Your task to perform on an android device: open sync settings in chrome Image 0: 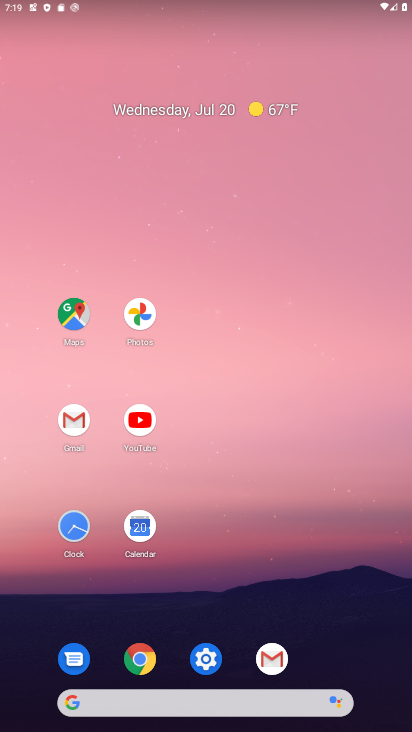
Step 0: click (144, 661)
Your task to perform on an android device: open sync settings in chrome Image 1: 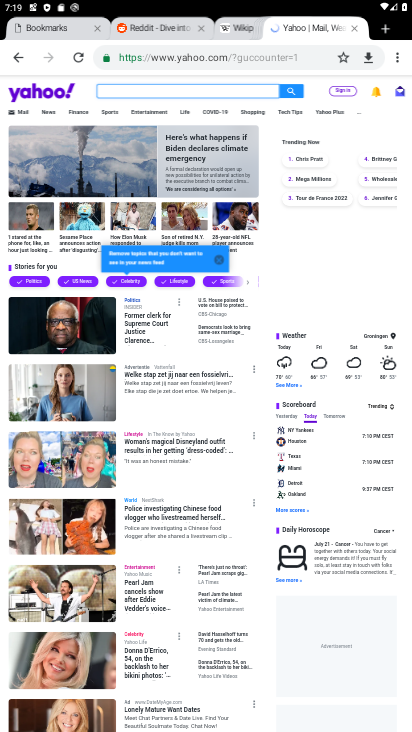
Step 1: click (398, 58)
Your task to perform on an android device: open sync settings in chrome Image 2: 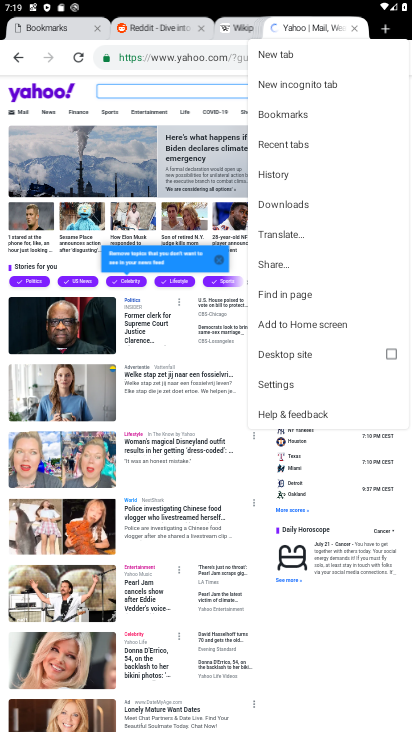
Step 2: click (275, 386)
Your task to perform on an android device: open sync settings in chrome Image 3: 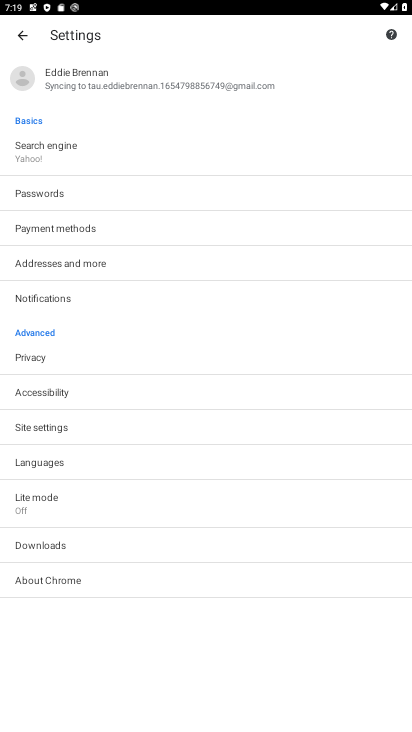
Step 3: click (63, 72)
Your task to perform on an android device: open sync settings in chrome Image 4: 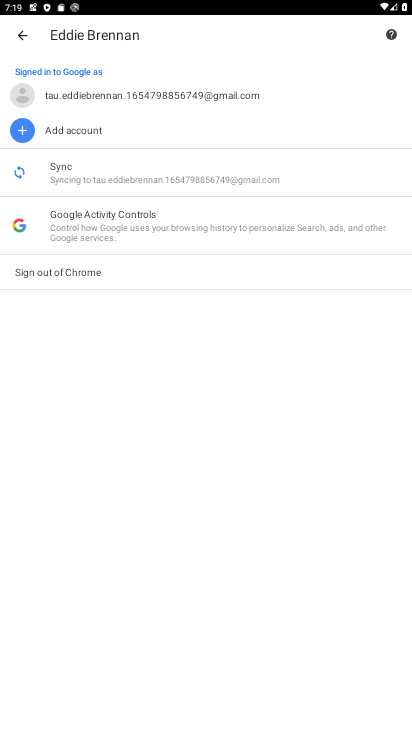
Step 4: click (80, 160)
Your task to perform on an android device: open sync settings in chrome Image 5: 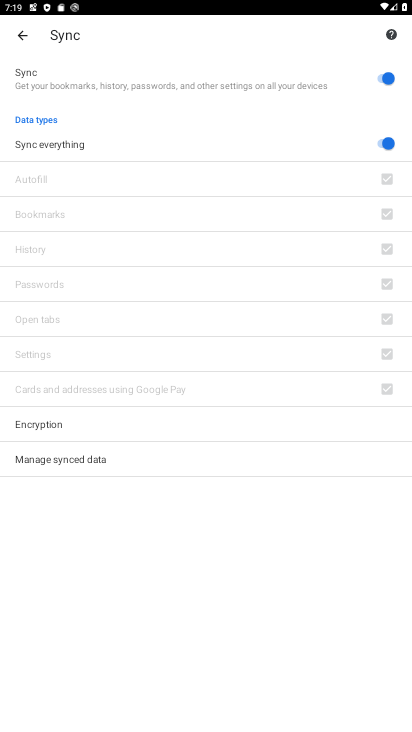
Step 5: task complete